Your task to perform on an android device: Go to network settings Image 0: 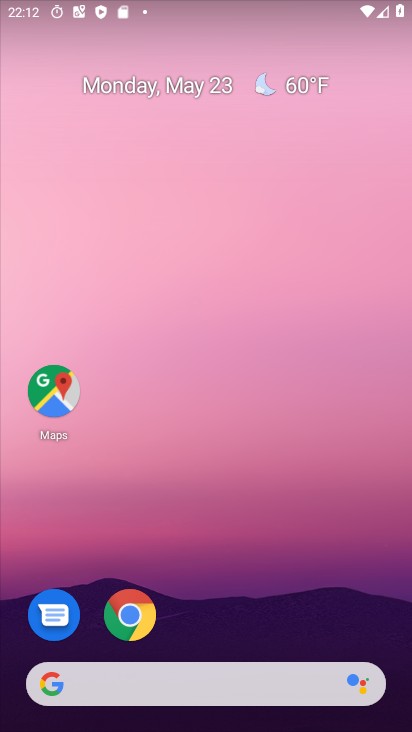
Step 0: drag from (257, 588) to (226, 110)
Your task to perform on an android device: Go to network settings Image 1: 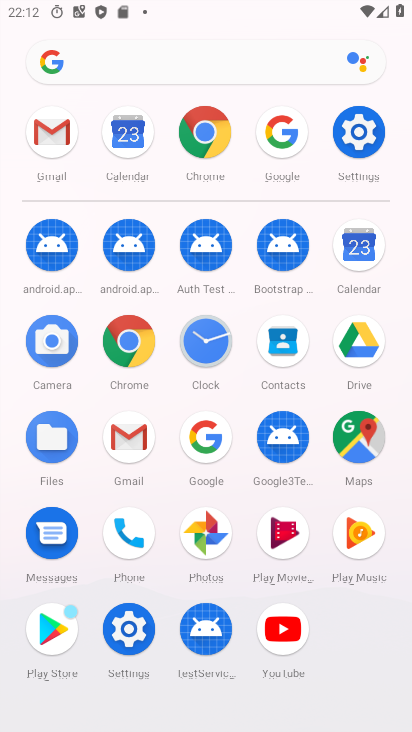
Step 1: click (363, 133)
Your task to perform on an android device: Go to network settings Image 2: 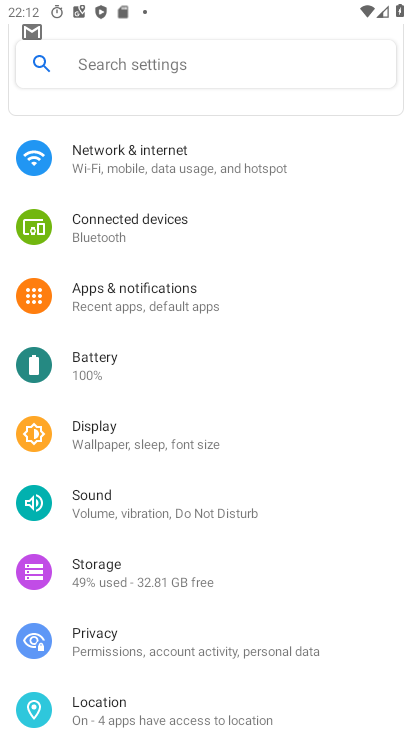
Step 2: click (165, 165)
Your task to perform on an android device: Go to network settings Image 3: 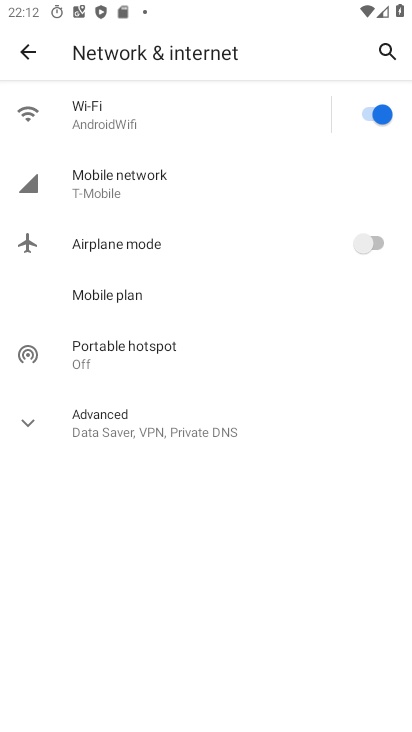
Step 3: click (140, 183)
Your task to perform on an android device: Go to network settings Image 4: 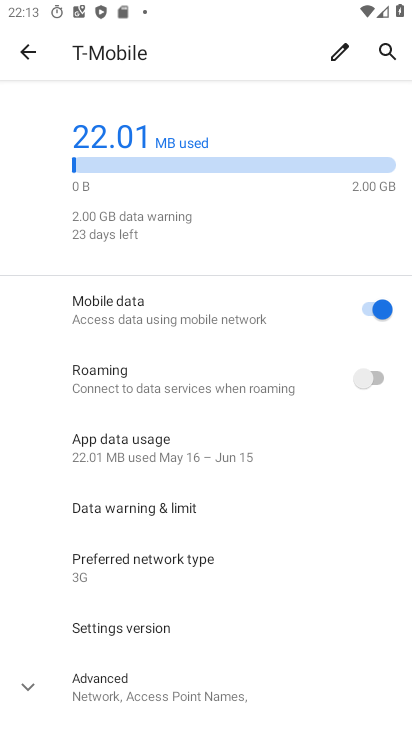
Step 4: task complete